Your task to perform on an android device: Open display settings Image 0: 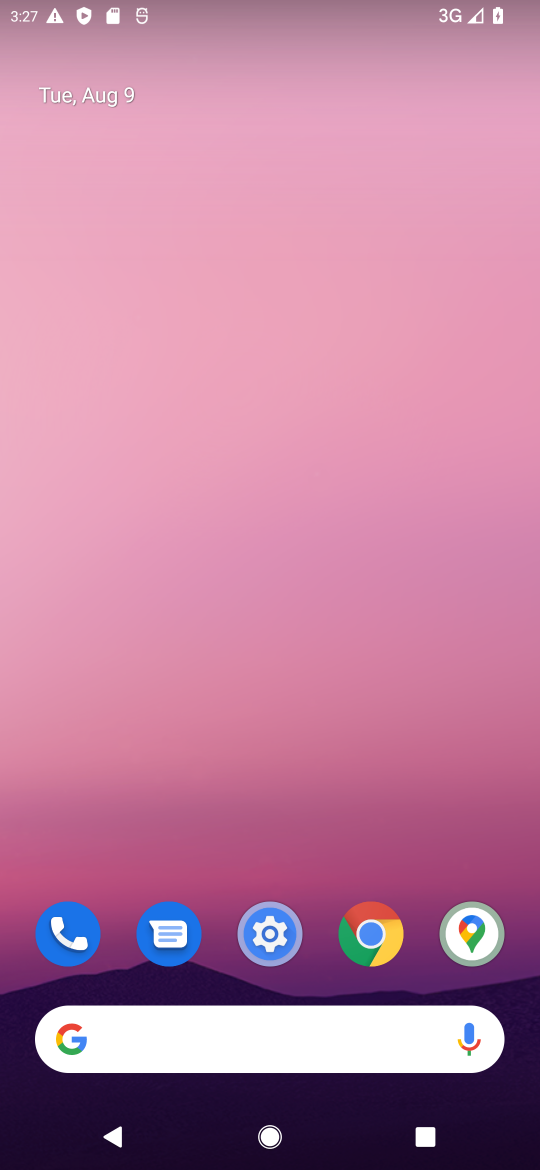
Step 0: click (251, 938)
Your task to perform on an android device: Open display settings Image 1: 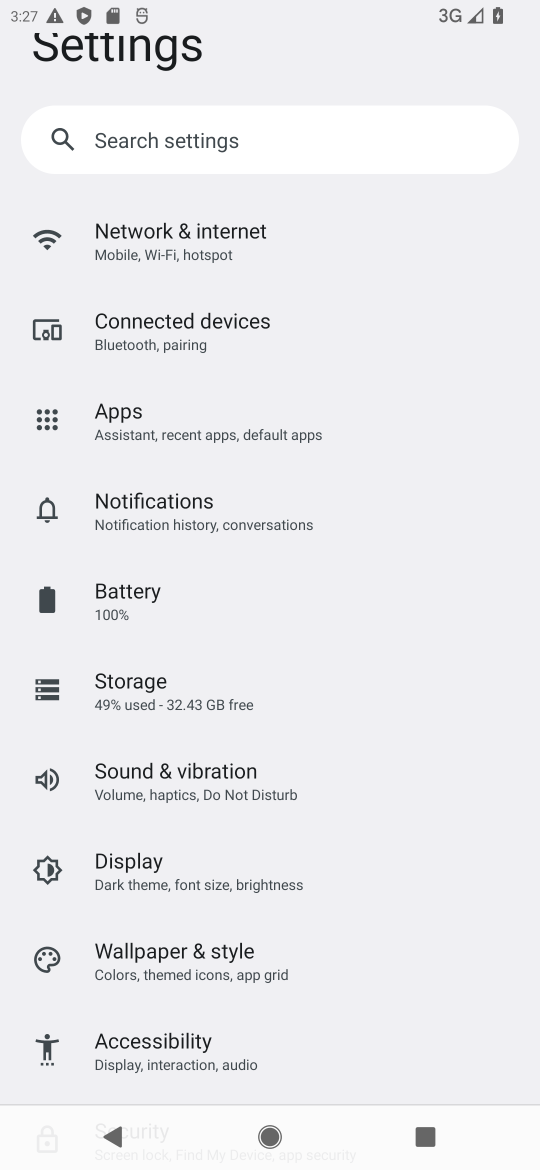
Step 1: click (262, 845)
Your task to perform on an android device: Open display settings Image 2: 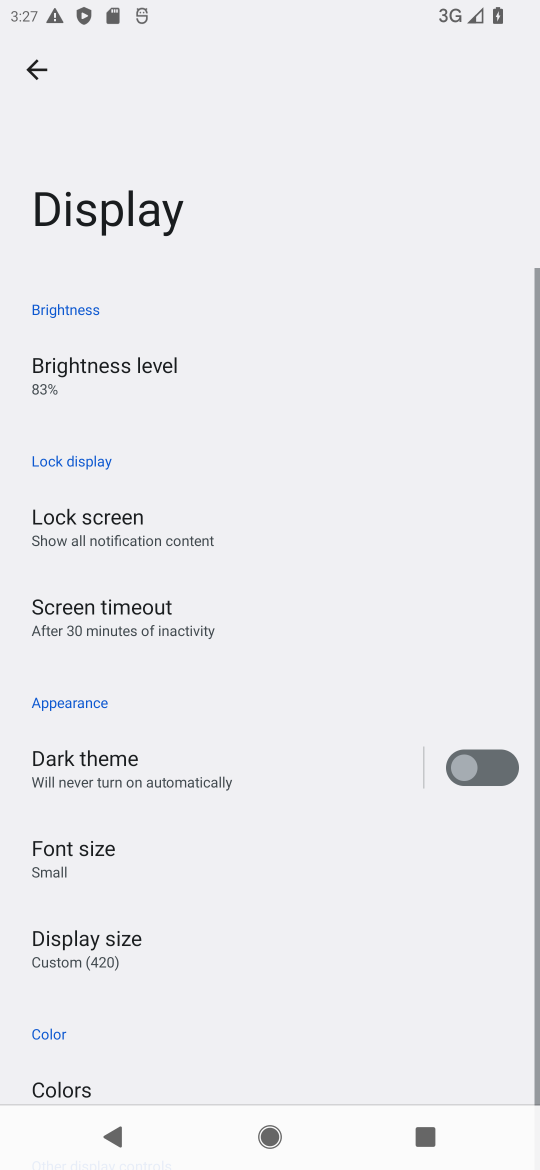
Step 2: task complete